Your task to perform on an android device: Open network settings Image 0: 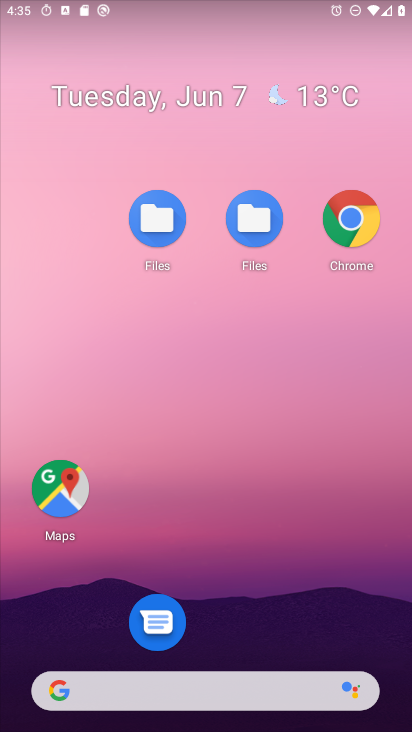
Step 0: drag from (282, 626) to (272, 383)
Your task to perform on an android device: Open network settings Image 1: 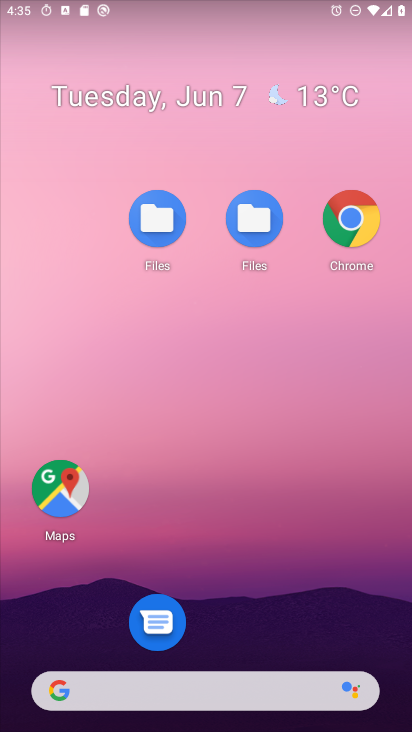
Step 1: drag from (236, 654) to (272, 224)
Your task to perform on an android device: Open network settings Image 2: 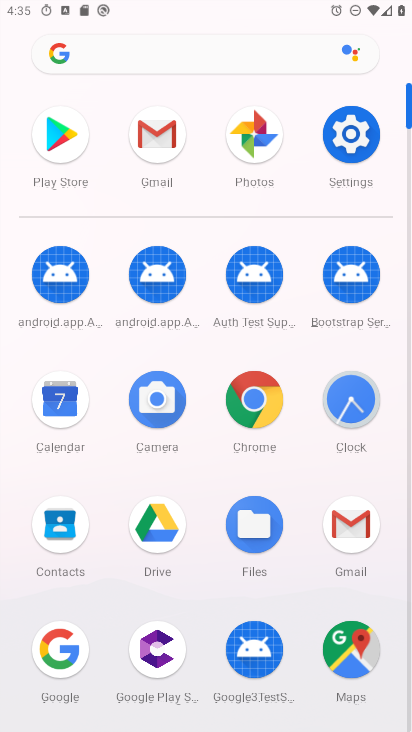
Step 2: click (348, 141)
Your task to perform on an android device: Open network settings Image 3: 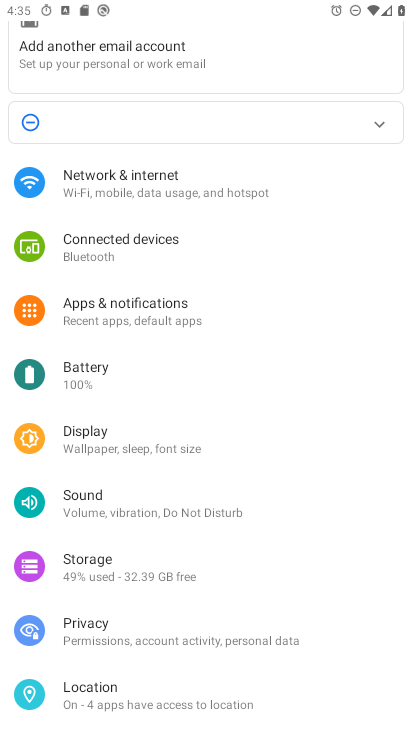
Step 3: click (176, 175)
Your task to perform on an android device: Open network settings Image 4: 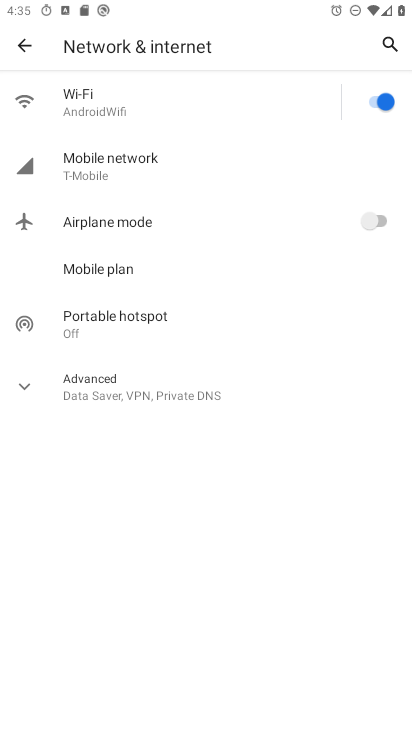
Step 4: task complete